Your task to perform on an android device: Clear all items from cart on walmart.com. Search for acer nitro on walmart.com, select the first entry, and add it to the cart. Image 0: 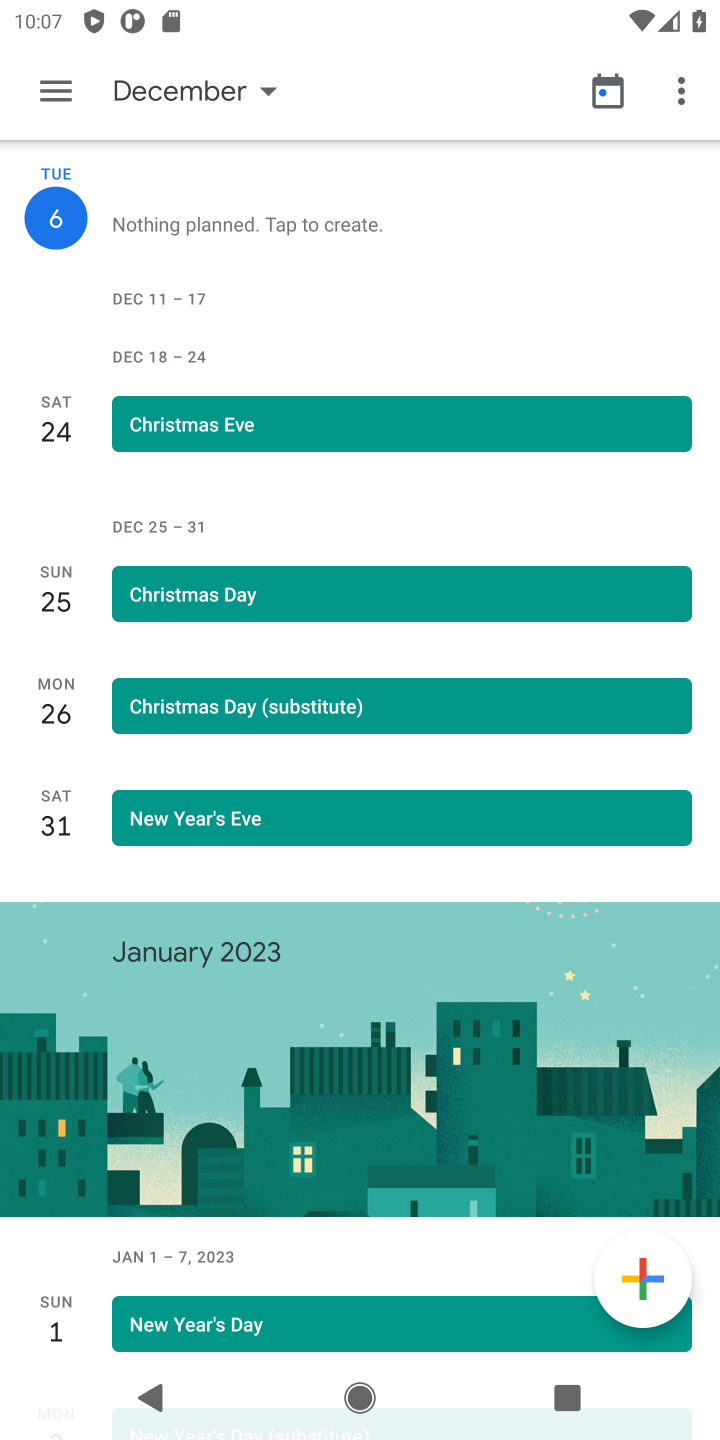
Step 0: press home button
Your task to perform on an android device: Clear all items from cart on walmart.com. Search for acer nitro on walmart.com, select the first entry, and add it to the cart. Image 1: 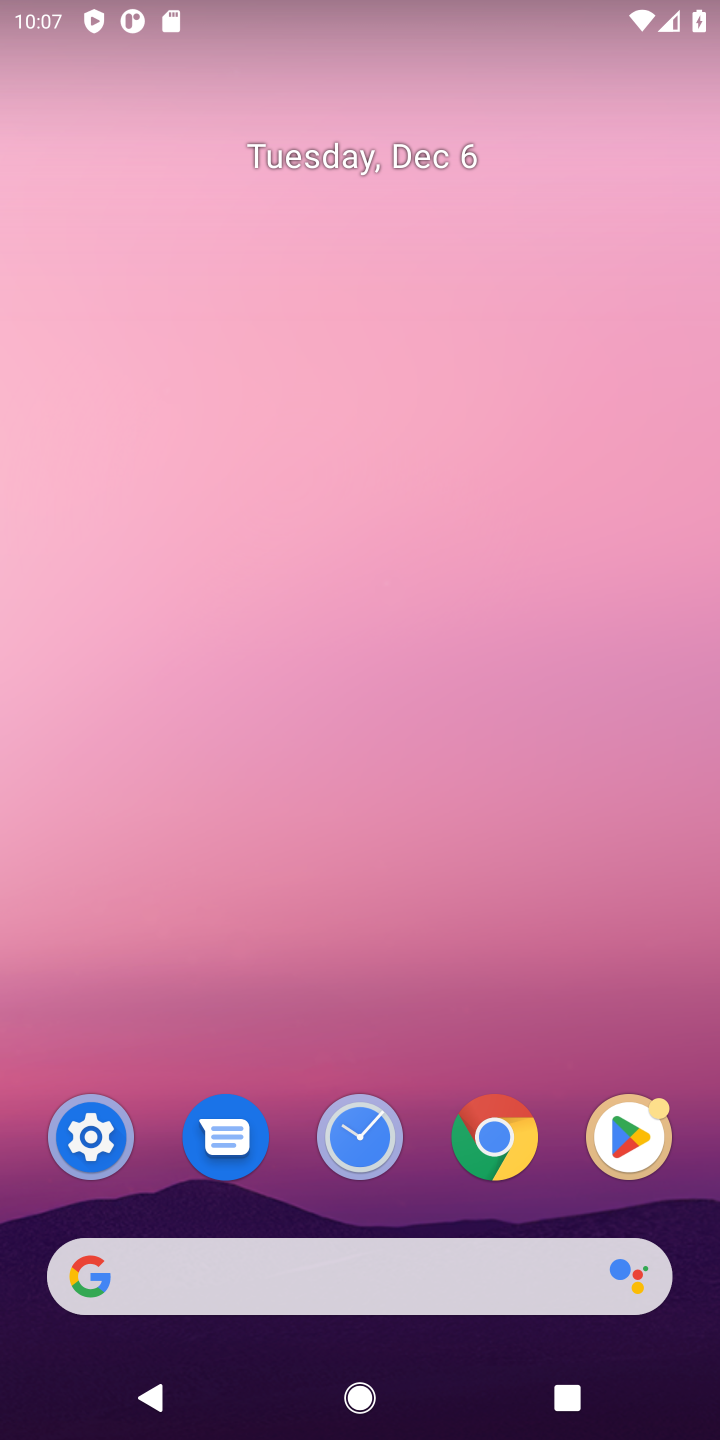
Step 1: drag from (462, 1232) to (511, 132)
Your task to perform on an android device: Clear all items from cart on walmart.com. Search for acer nitro on walmart.com, select the first entry, and add it to the cart. Image 2: 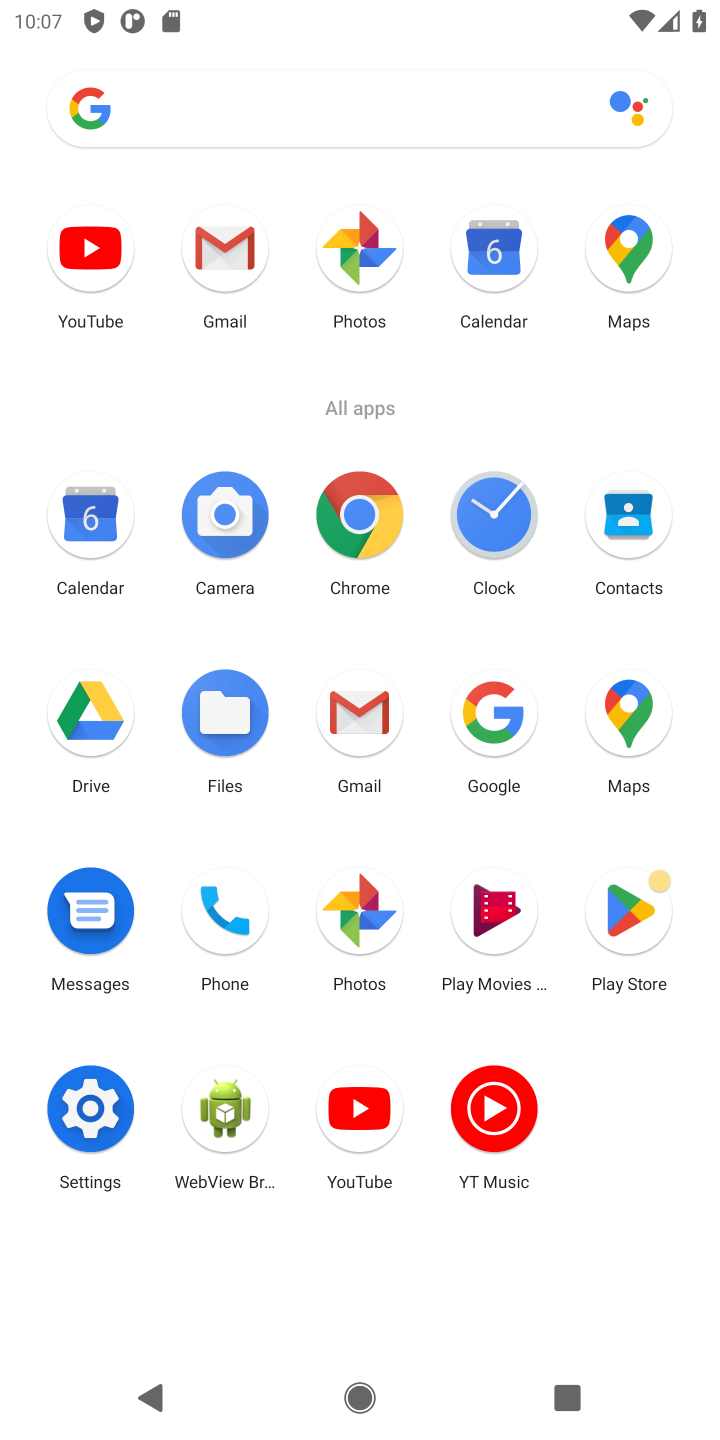
Step 2: click (354, 514)
Your task to perform on an android device: Clear all items from cart on walmart.com. Search for acer nitro on walmart.com, select the first entry, and add it to the cart. Image 3: 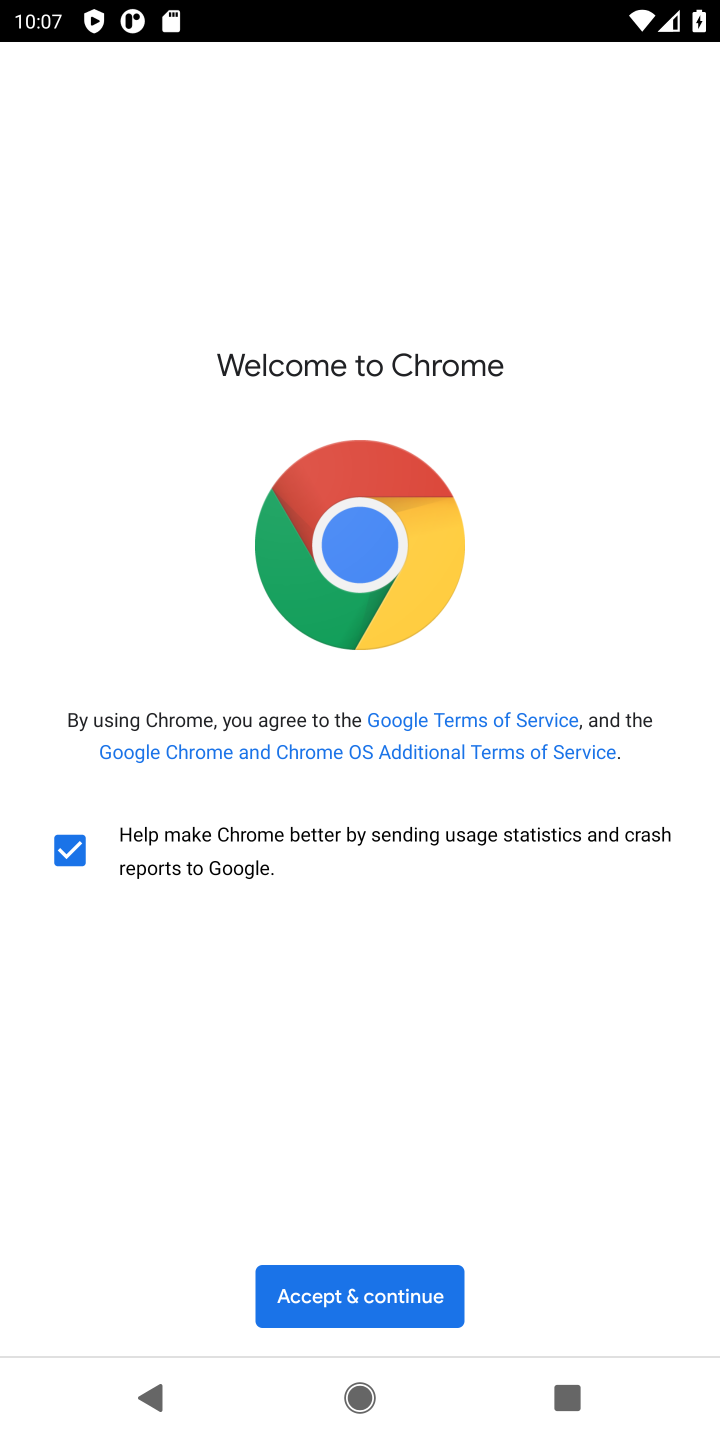
Step 3: click (401, 1287)
Your task to perform on an android device: Clear all items from cart on walmart.com. Search for acer nitro on walmart.com, select the first entry, and add it to the cart. Image 4: 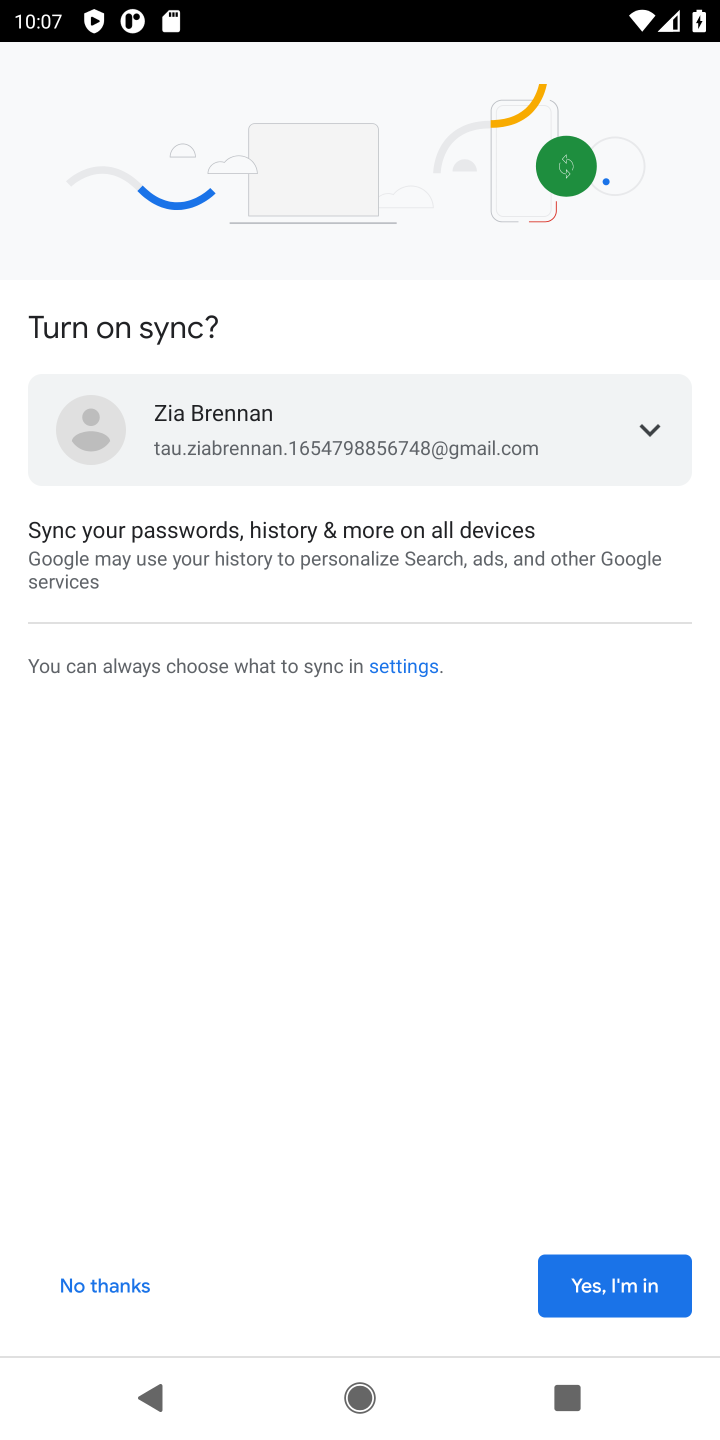
Step 4: click (625, 1282)
Your task to perform on an android device: Clear all items from cart on walmart.com. Search for acer nitro on walmart.com, select the first entry, and add it to the cart. Image 5: 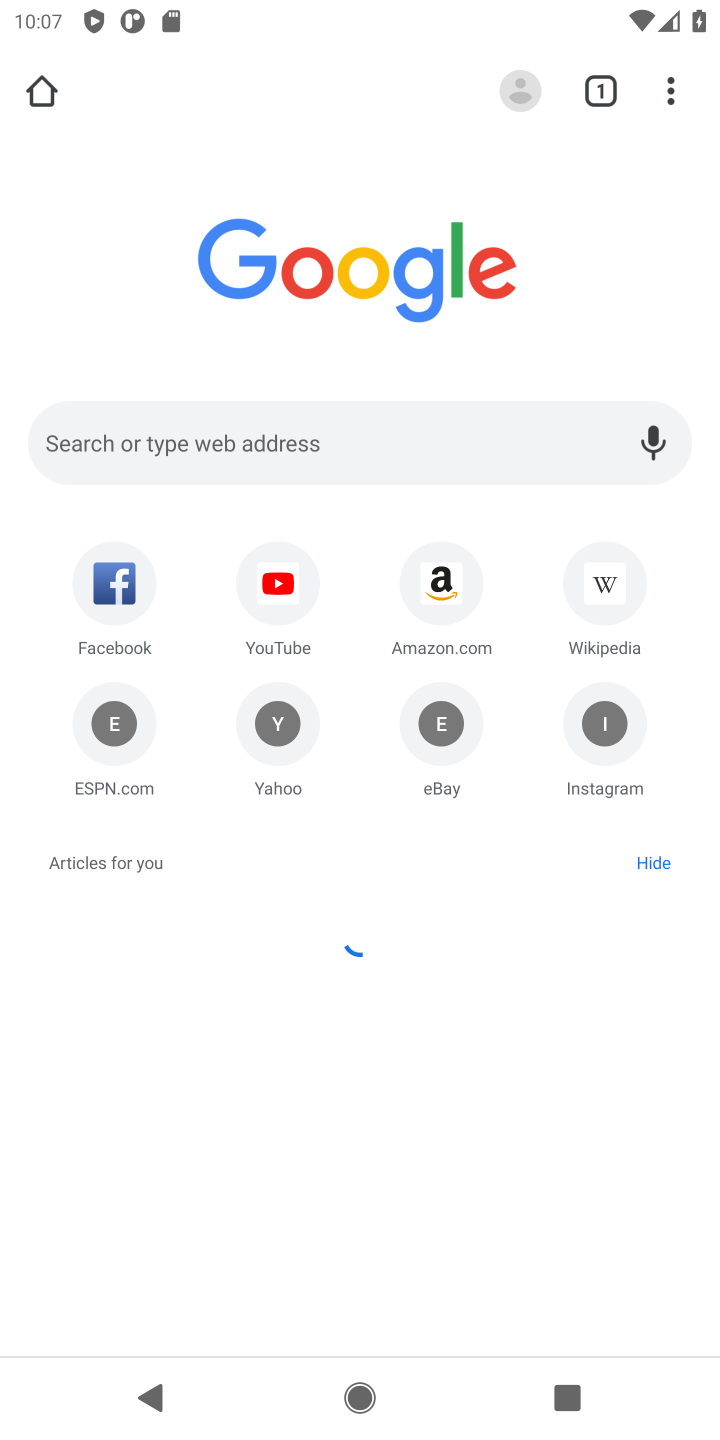
Step 5: click (273, 455)
Your task to perform on an android device: Clear all items from cart on walmart.com. Search for acer nitro on walmart.com, select the first entry, and add it to the cart. Image 6: 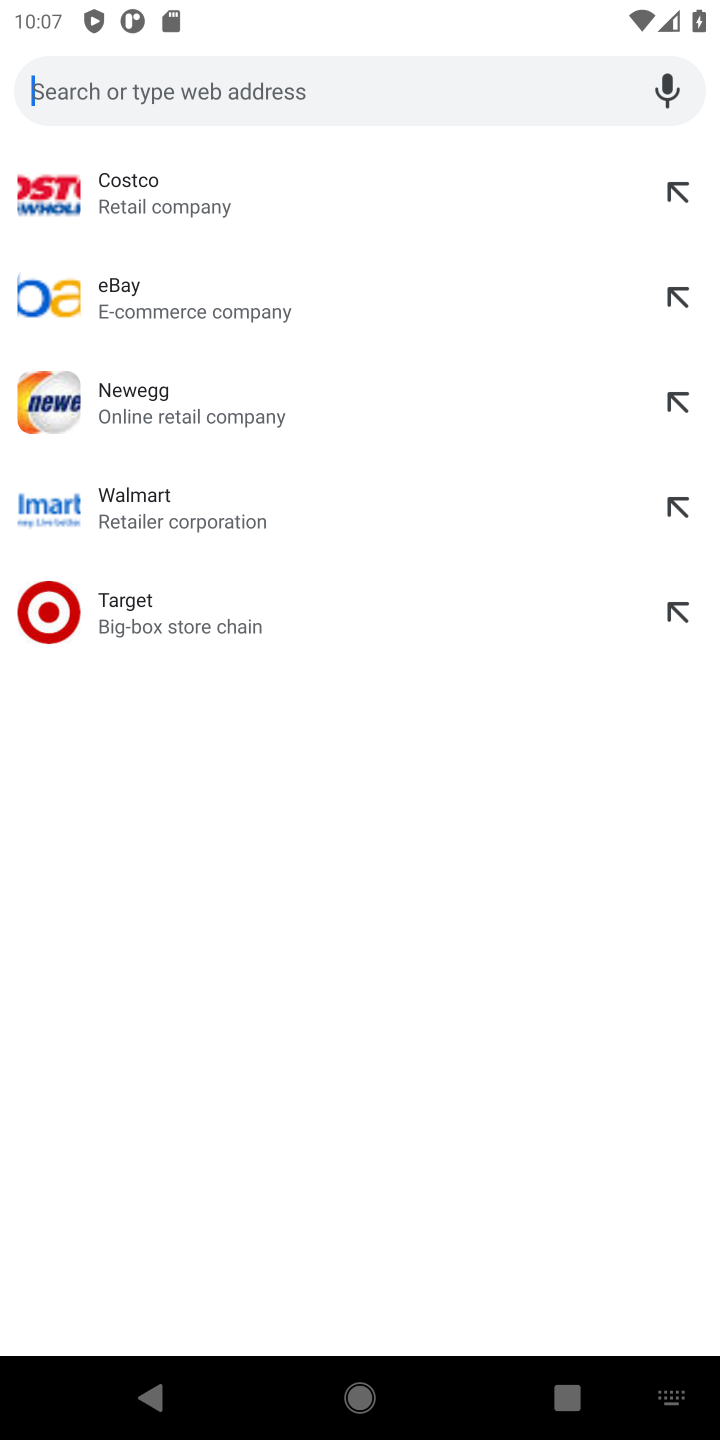
Step 6: type "walmart.com"
Your task to perform on an android device: Clear all items from cart on walmart.com. Search for acer nitro on walmart.com, select the first entry, and add it to the cart. Image 7: 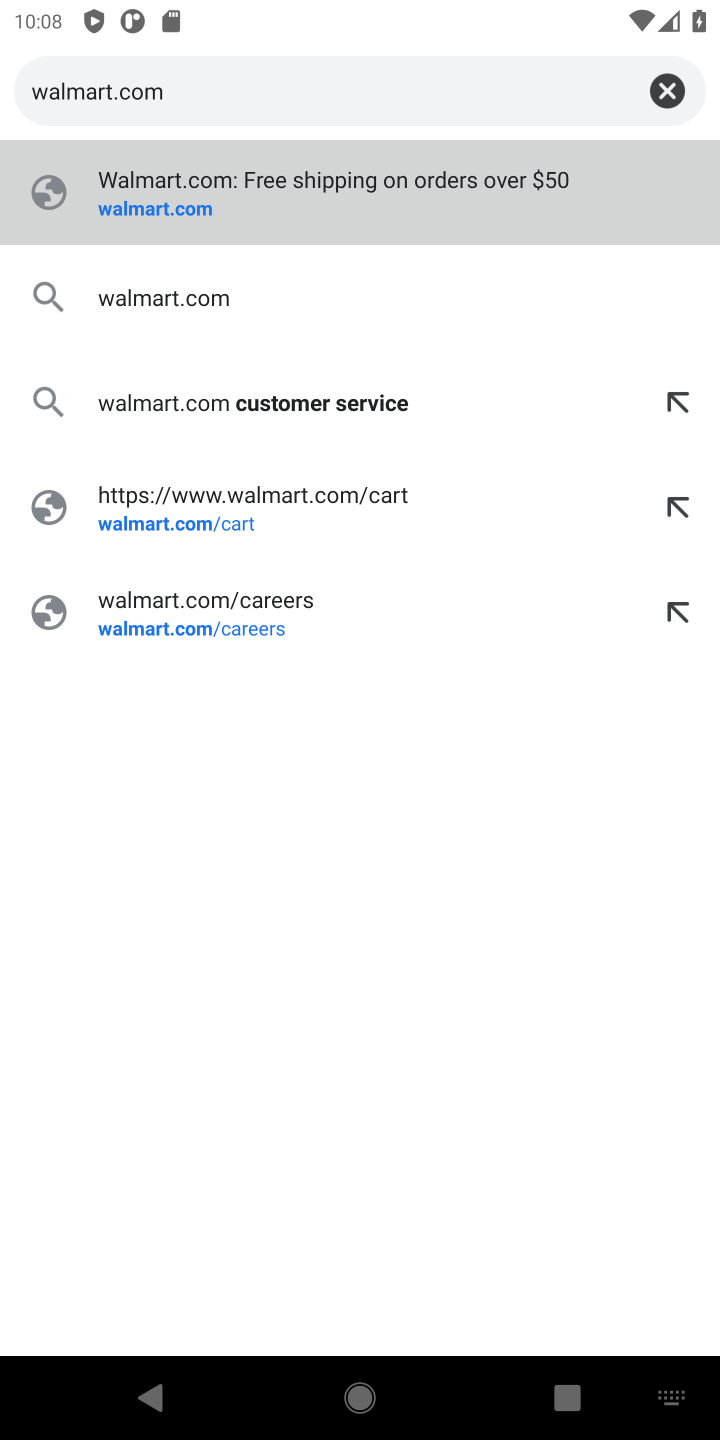
Step 7: type ""
Your task to perform on an android device: Clear all items from cart on walmart.com. Search for acer nitro on walmart.com, select the first entry, and add it to the cart. Image 8: 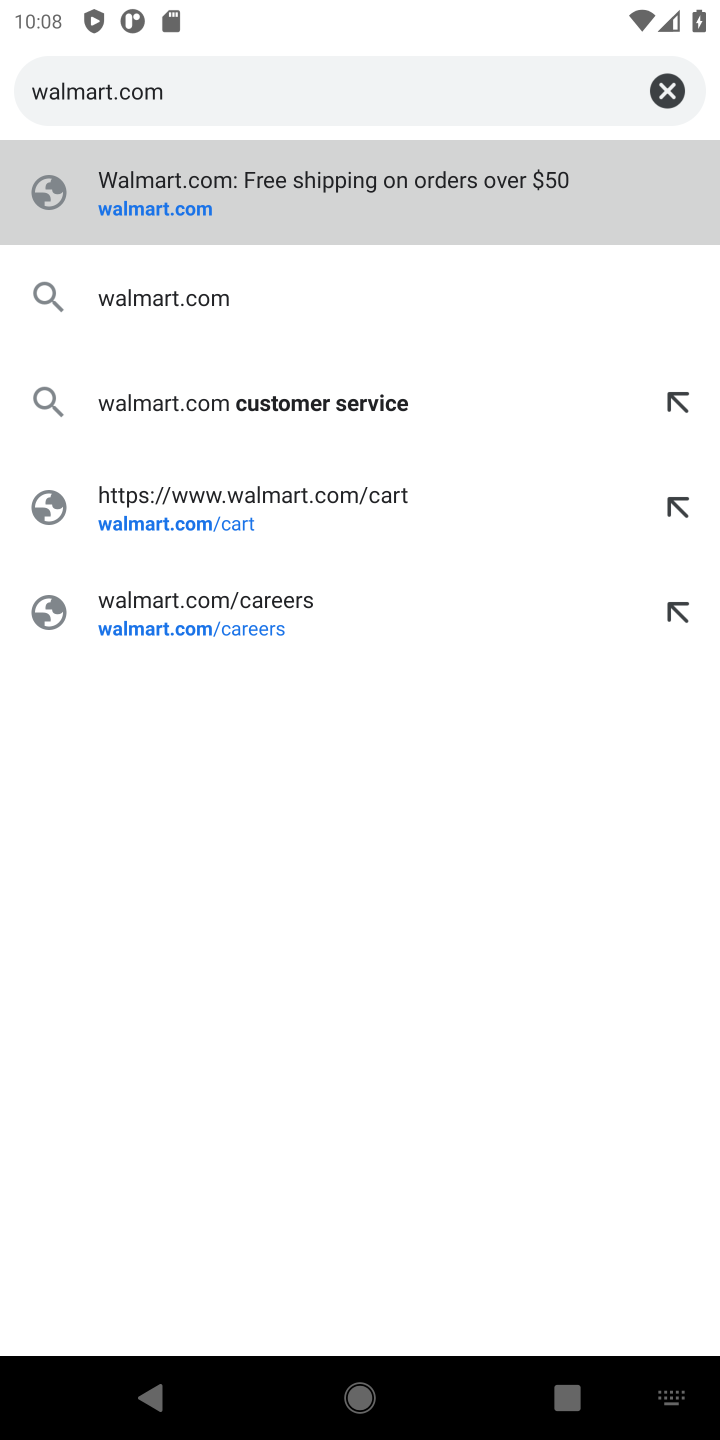
Step 8: click (164, 202)
Your task to perform on an android device: Clear all items from cart on walmart.com. Search for acer nitro on walmart.com, select the first entry, and add it to the cart. Image 9: 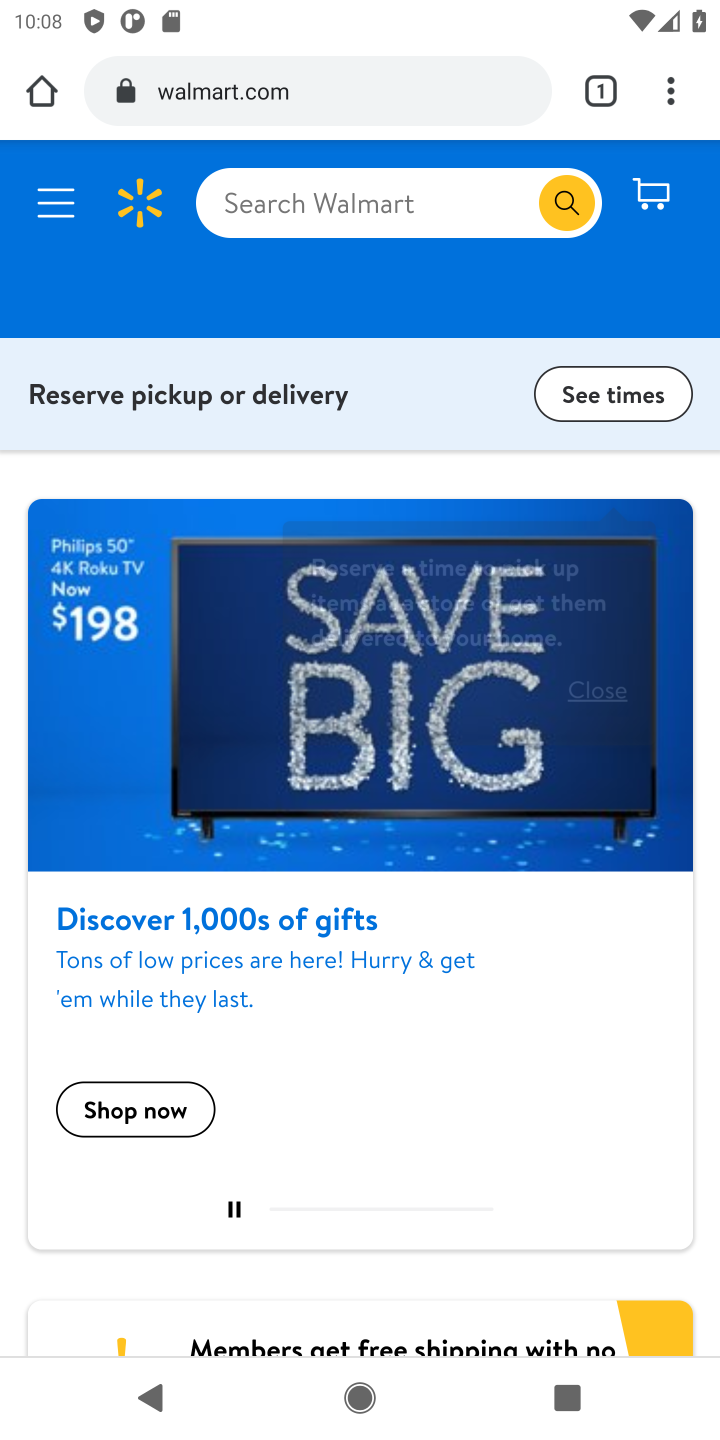
Step 9: click (653, 203)
Your task to perform on an android device: Clear all items from cart on walmart.com. Search for acer nitro on walmart.com, select the first entry, and add it to the cart. Image 10: 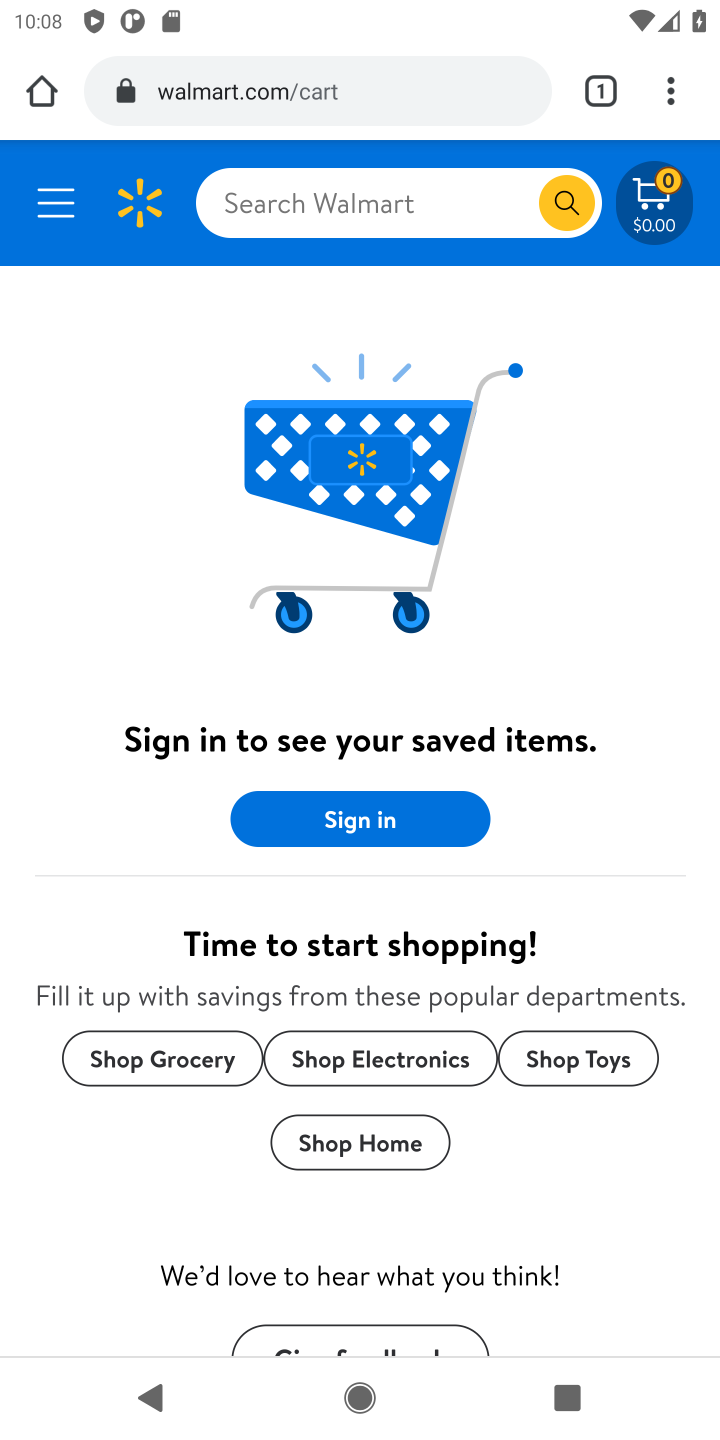
Step 10: click (352, 208)
Your task to perform on an android device: Clear all items from cart on walmart.com. Search for acer nitro on walmart.com, select the first entry, and add it to the cart. Image 11: 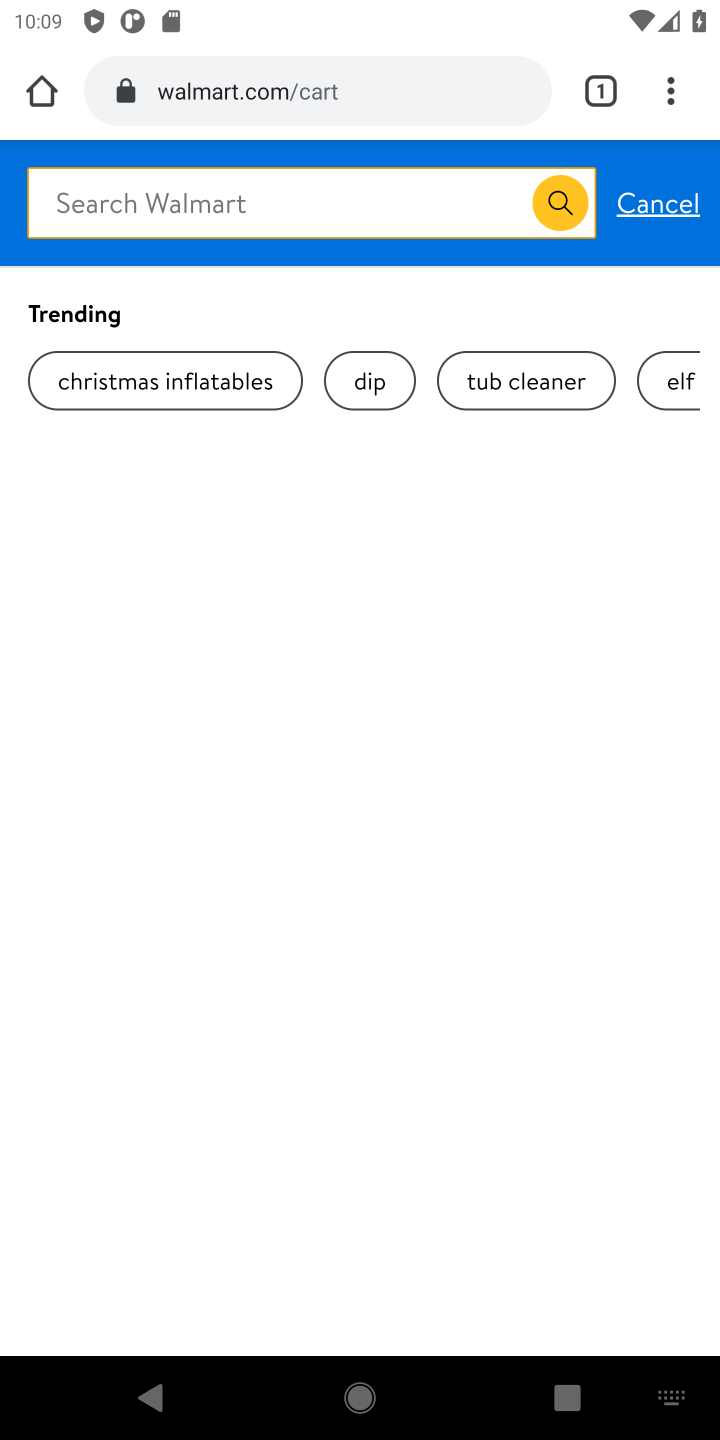
Step 11: type " acer nitro"
Your task to perform on an android device: Clear all items from cart on walmart.com. Search for acer nitro on walmart.com, select the first entry, and add it to the cart. Image 12: 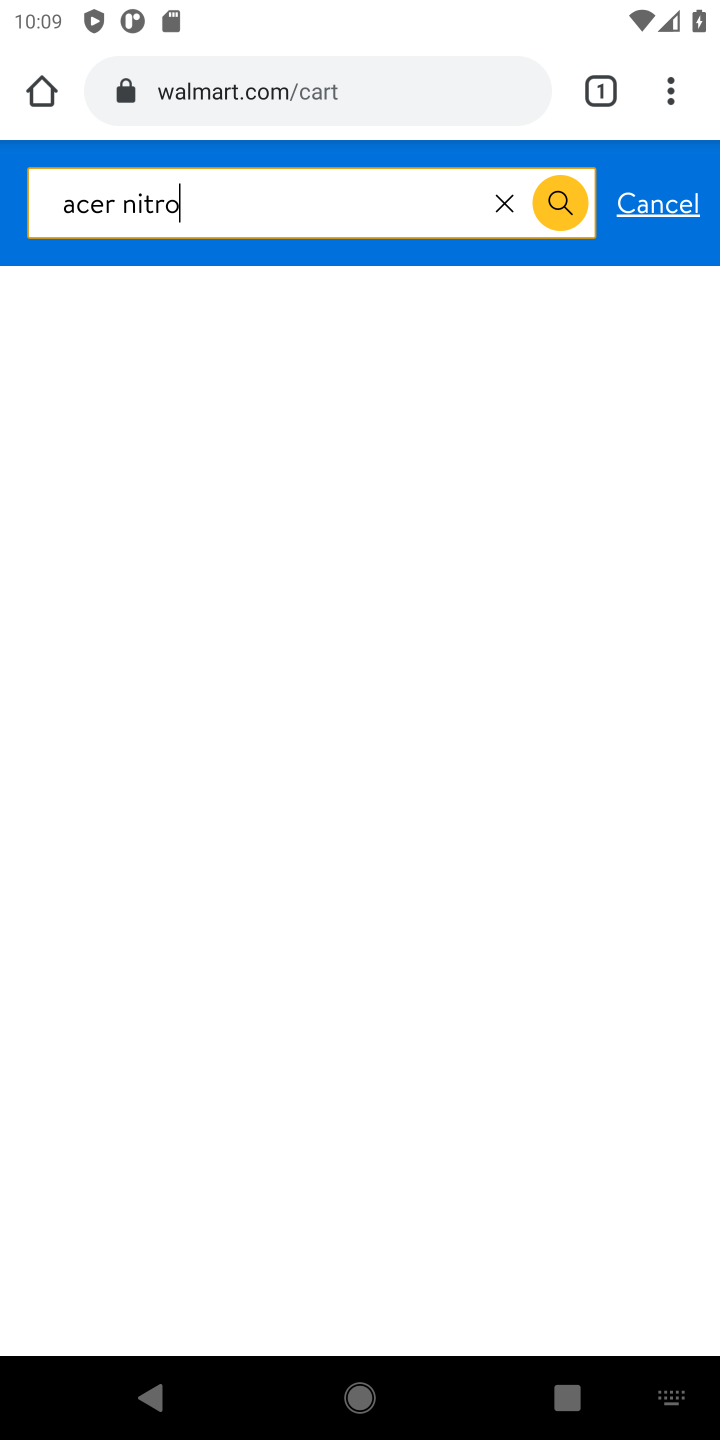
Step 12: type ""
Your task to perform on an android device: Clear all items from cart on walmart.com. Search for acer nitro on walmart.com, select the first entry, and add it to the cart. Image 13: 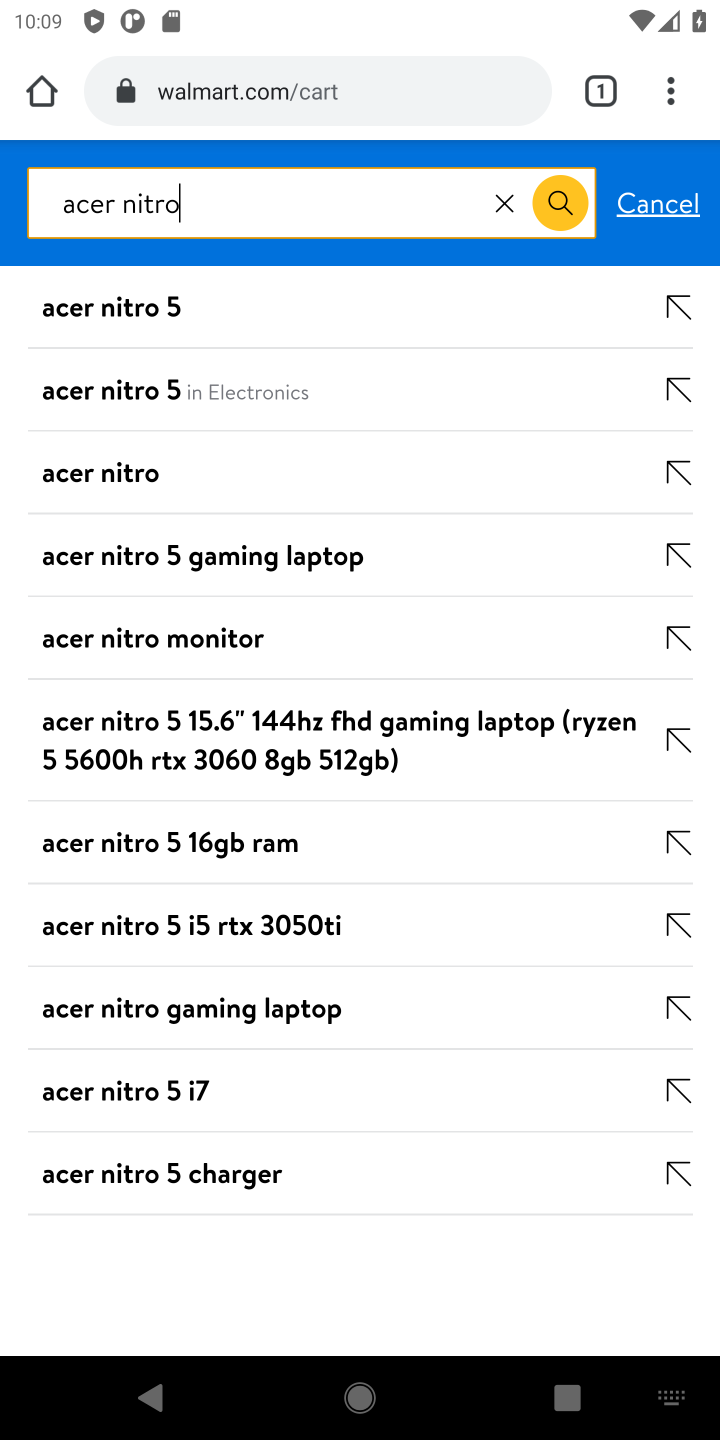
Step 13: click (117, 474)
Your task to perform on an android device: Clear all items from cart on walmart.com. Search for acer nitro on walmart.com, select the first entry, and add it to the cart. Image 14: 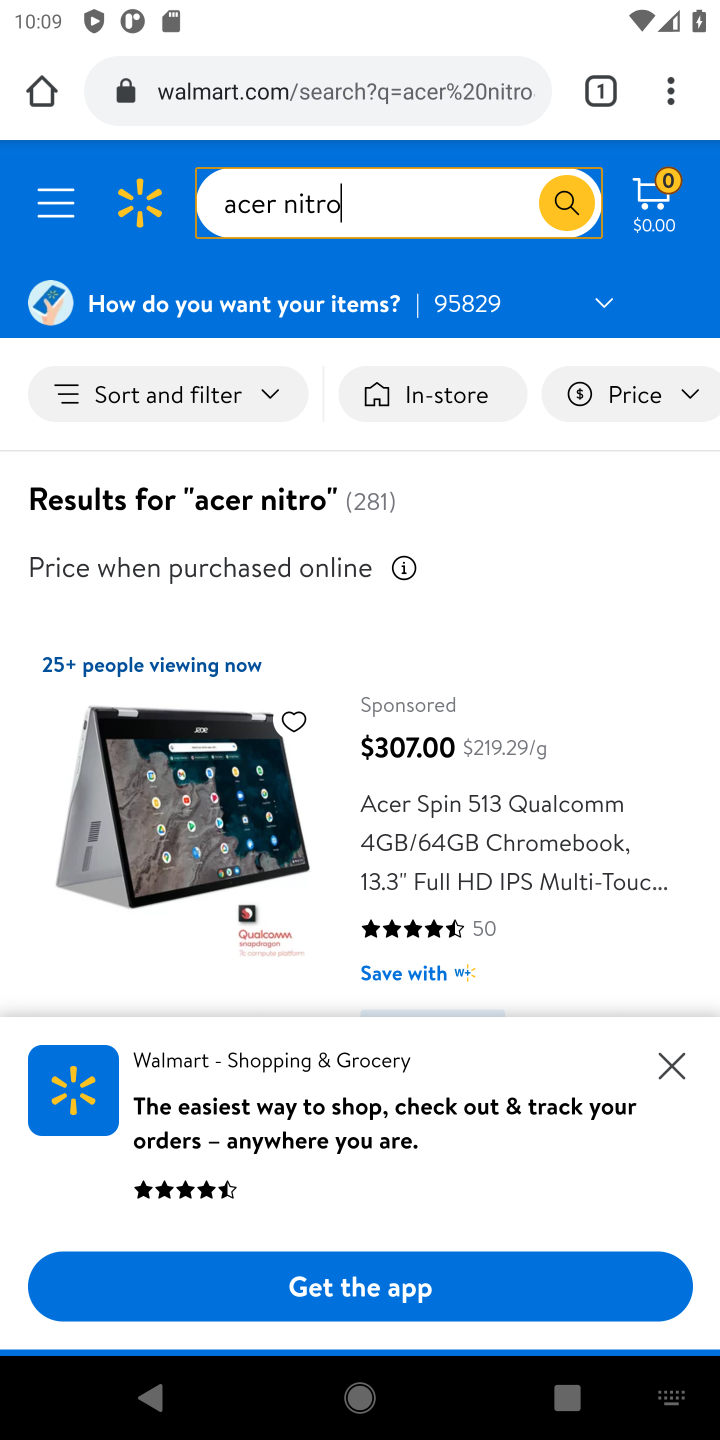
Step 14: drag from (553, 894) to (448, 449)
Your task to perform on an android device: Clear all items from cart on walmart.com. Search for acer nitro on walmart.com, select the first entry, and add it to the cart. Image 15: 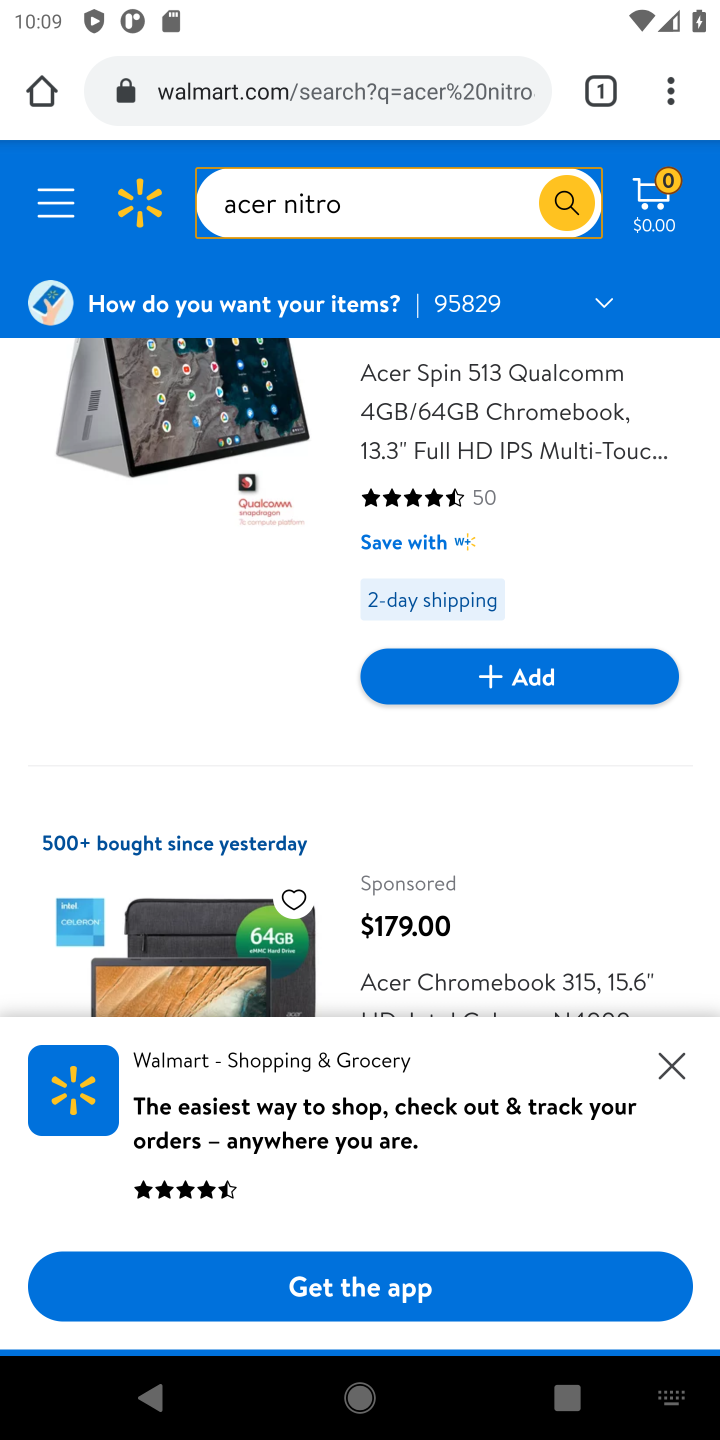
Step 15: click (170, 485)
Your task to perform on an android device: Clear all items from cart on walmart.com. Search for acer nitro on walmart.com, select the first entry, and add it to the cart. Image 16: 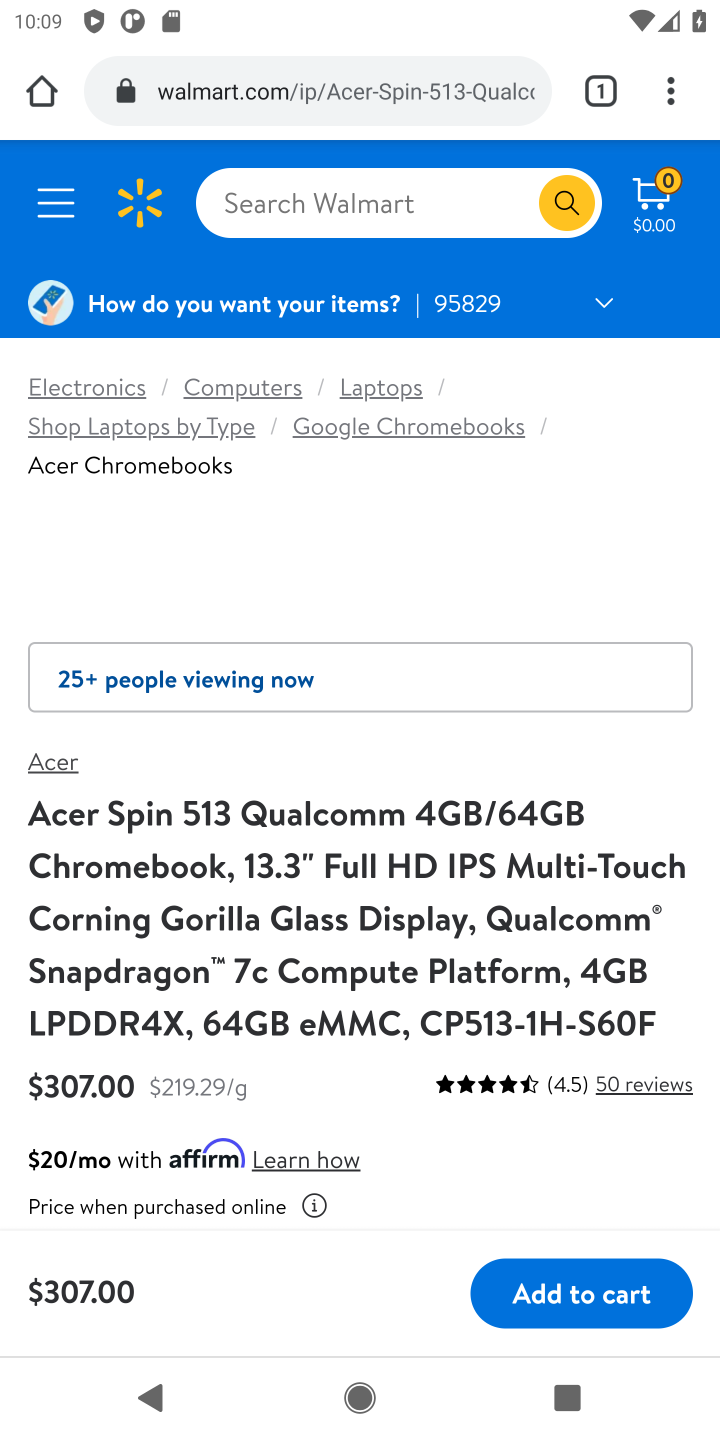
Step 16: click (594, 1283)
Your task to perform on an android device: Clear all items from cart on walmart.com. Search for acer nitro on walmart.com, select the first entry, and add it to the cart. Image 17: 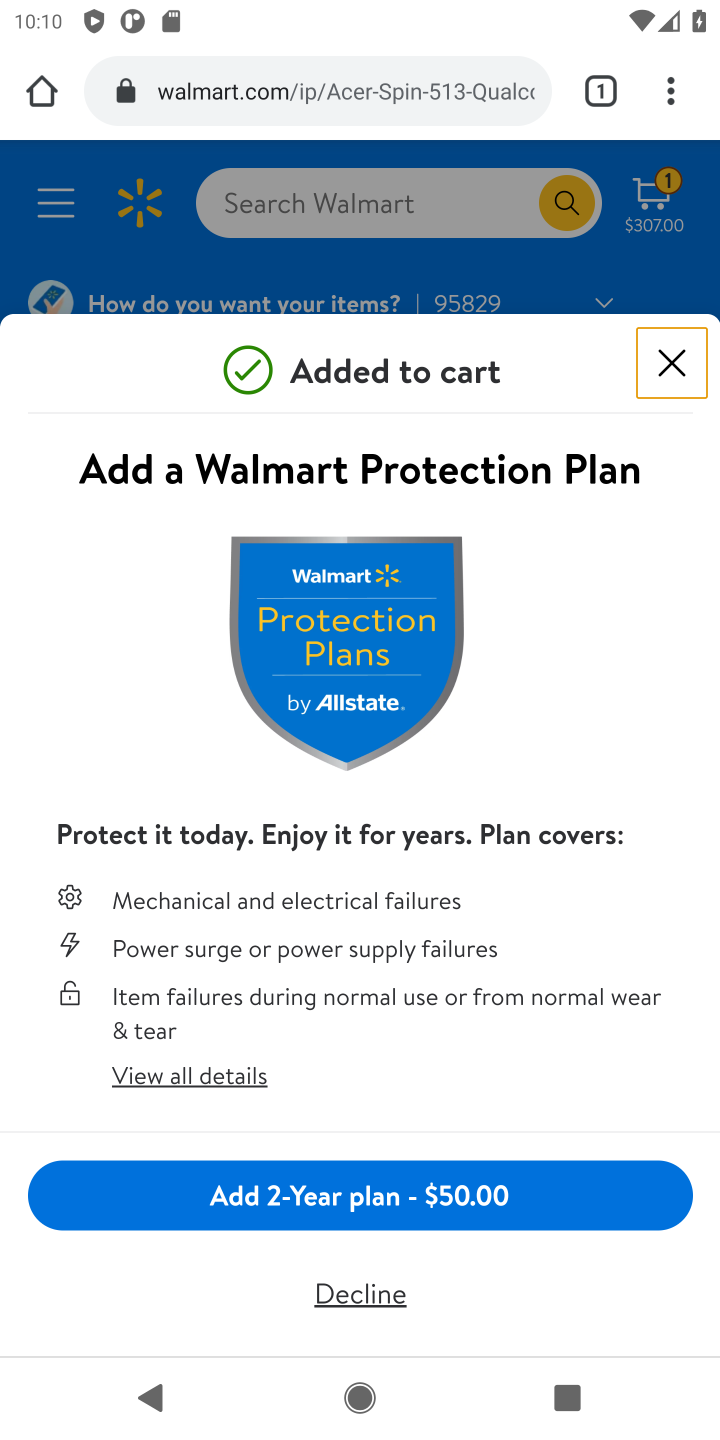
Step 17: task complete